Your task to perform on an android device: Open Google Chrome Image 0: 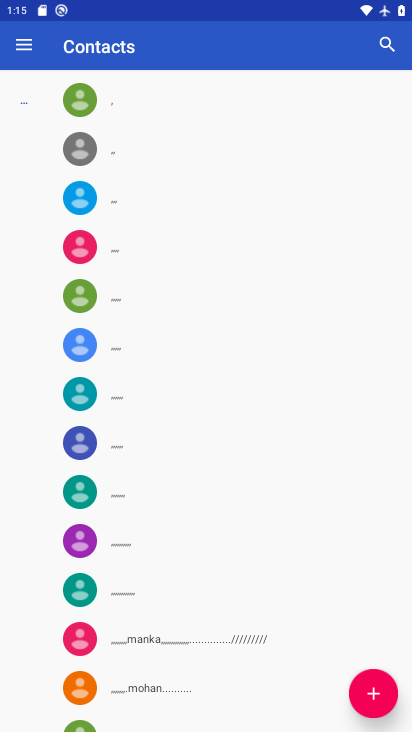
Step 0: press home button
Your task to perform on an android device: Open Google Chrome Image 1: 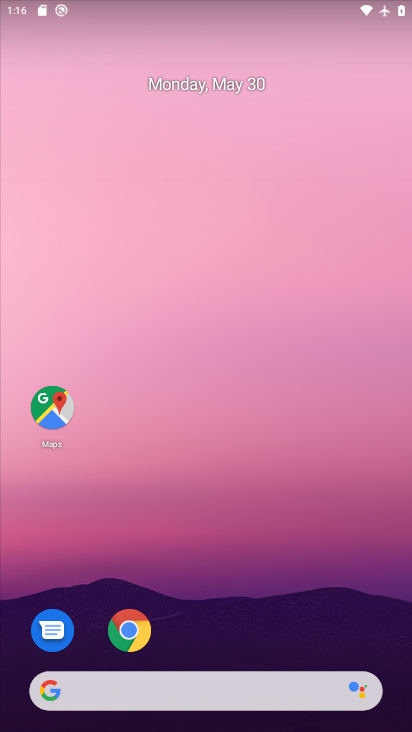
Step 1: click (126, 630)
Your task to perform on an android device: Open Google Chrome Image 2: 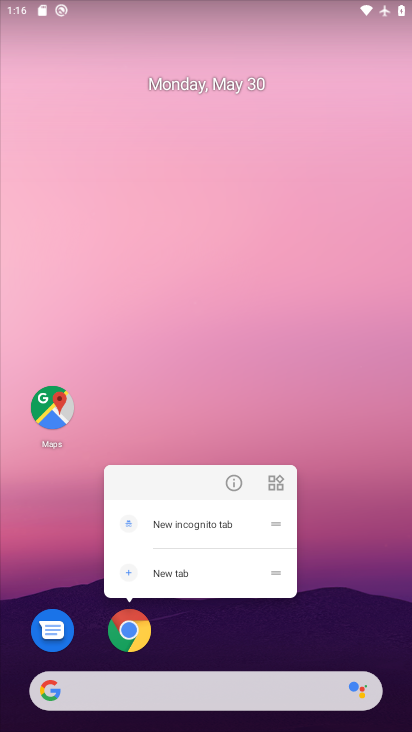
Step 2: click (126, 630)
Your task to perform on an android device: Open Google Chrome Image 3: 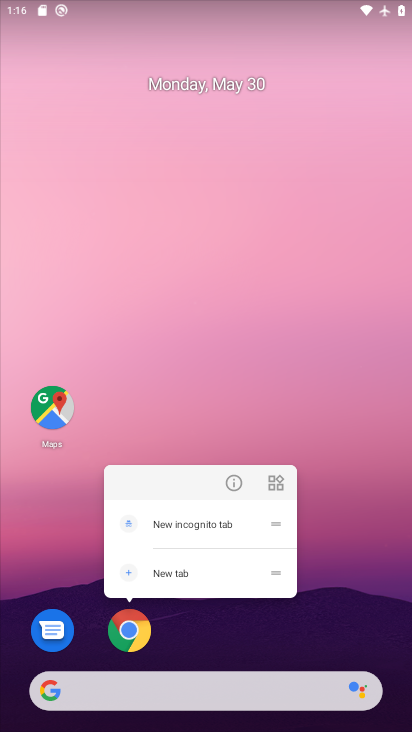
Step 3: click (140, 631)
Your task to perform on an android device: Open Google Chrome Image 4: 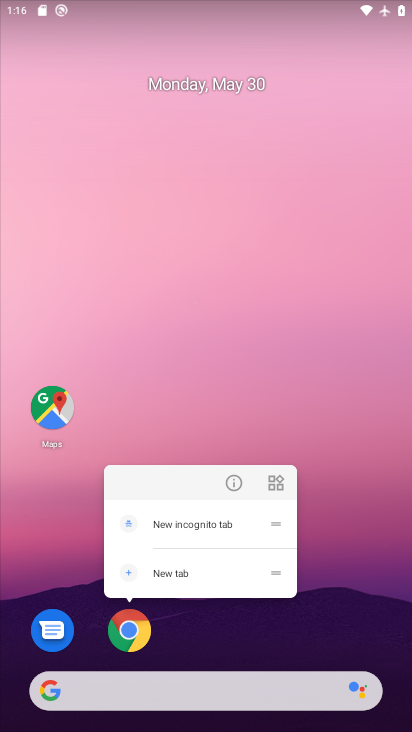
Step 4: click (131, 637)
Your task to perform on an android device: Open Google Chrome Image 5: 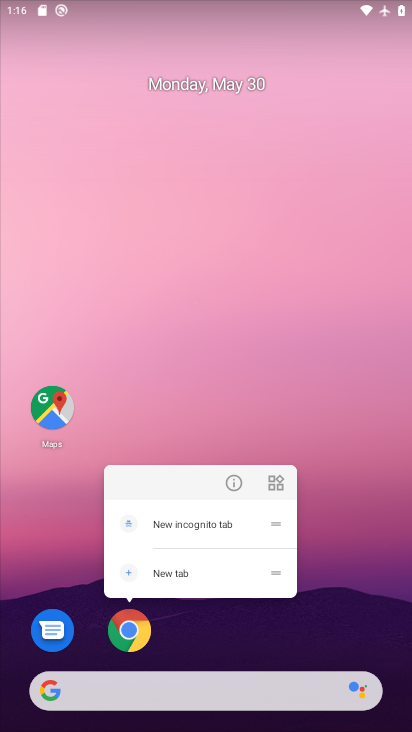
Step 5: click (131, 637)
Your task to perform on an android device: Open Google Chrome Image 6: 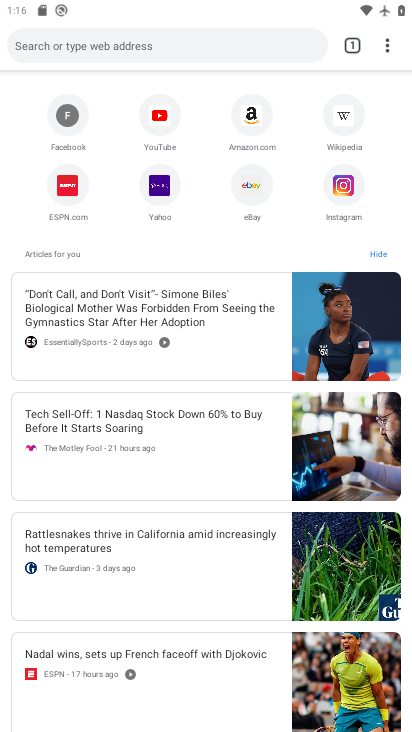
Step 6: task complete